Your task to perform on an android device: Go to internet settings Image 0: 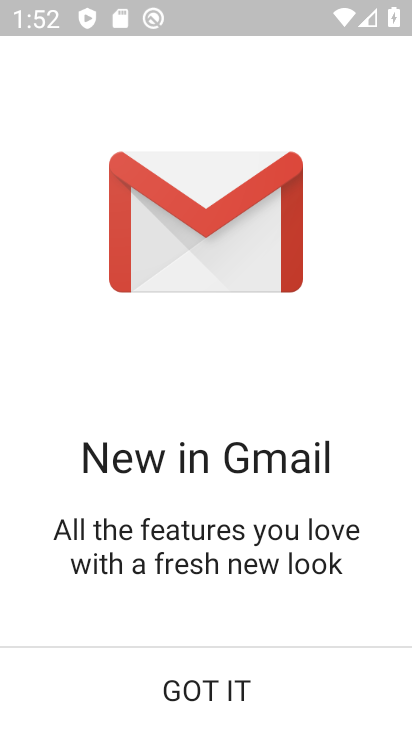
Step 0: click (258, 701)
Your task to perform on an android device: Go to internet settings Image 1: 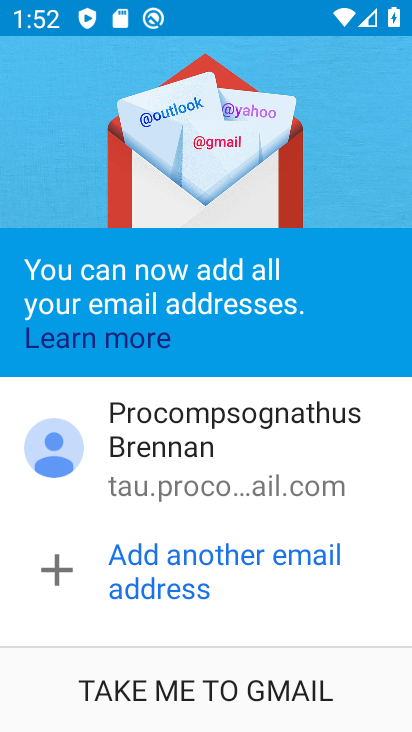
Step 1: drag from (245, 18) to (249, 305)
Your task to perform on an android device: Go to internet settings Image 2: 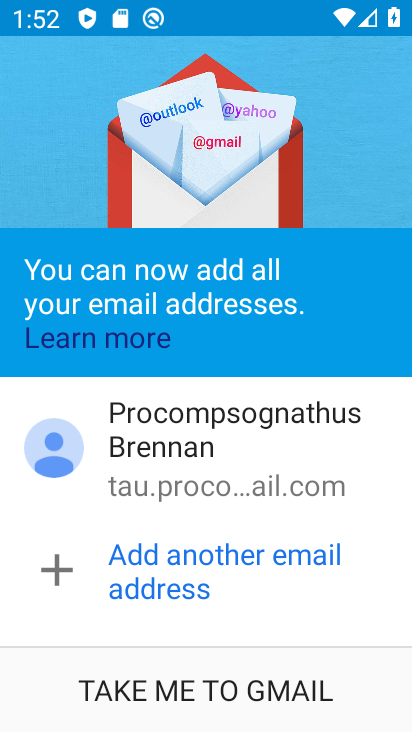
Step 2: press home button
Your task to perform on an android device: Go to internet settings Image 3: 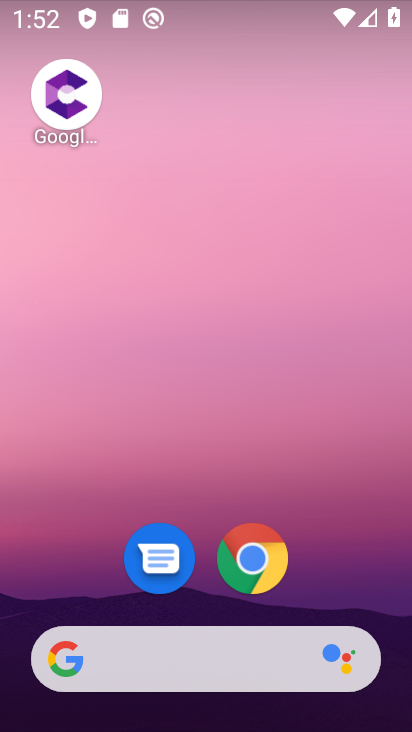
Step 3: drag from (353, 538) to (324, 22)
Your task to perform on an android device: Go to internet settings Image 4: 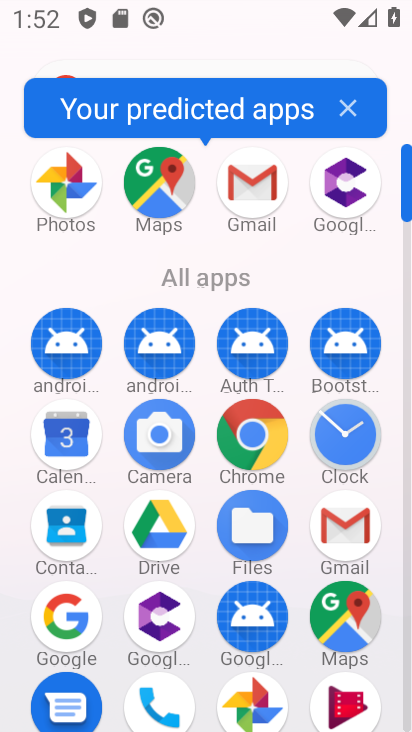
Step 4: drag from (225, 264) to (216, 56)
Your task to perform on an android device: Go to internet settings Image 5: 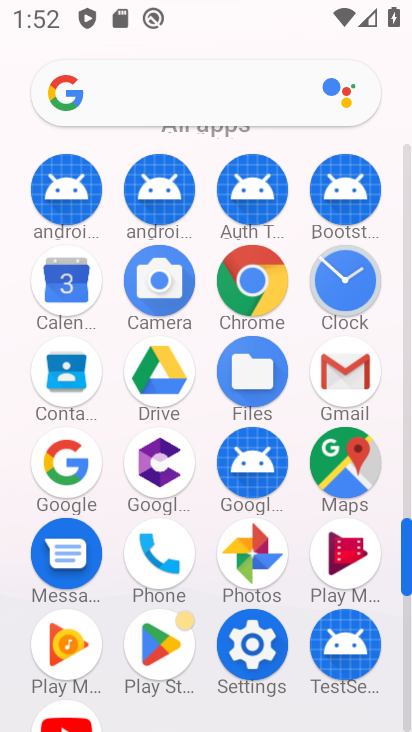
Step 5: click (266, 646)
Your task to perform on an android device: Go to internet settings Image 6: 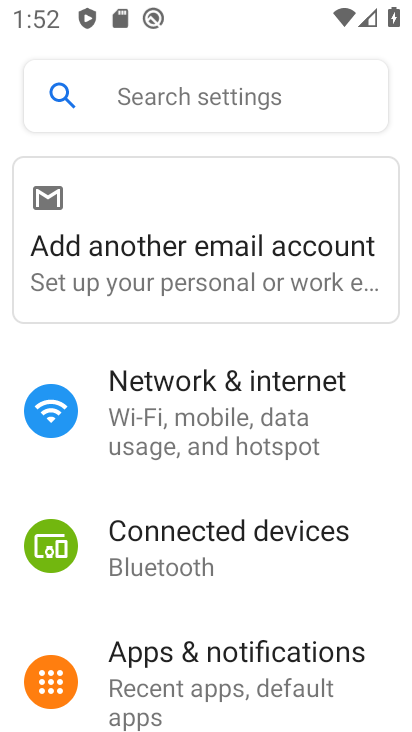
Step 6: click (181, 387)
Your task to perform on an android device: Go to internet settings Image 7: 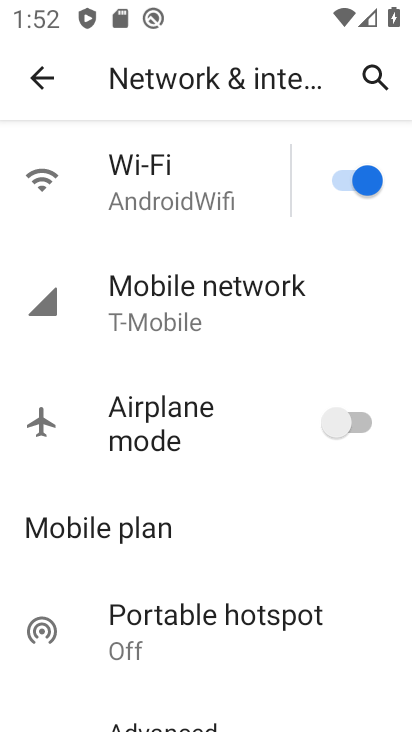
Step 7: task complete